Your task to perform on an android device: Go to wifi settings Image 0: 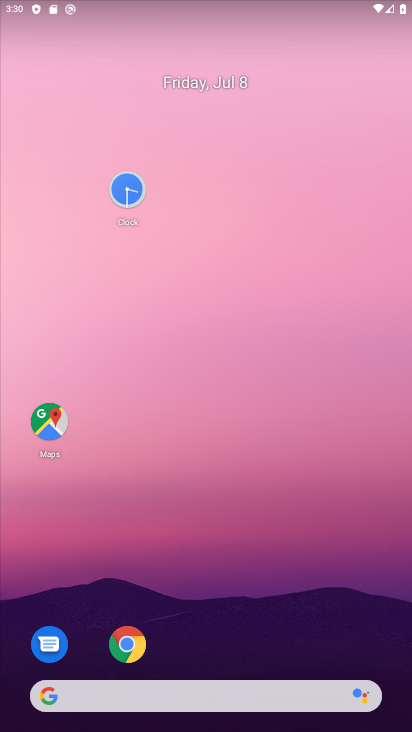
Step 0: drag from (210, 405) to (194, 302)
Your task to perform on an android device: Go to wifi settings Image 1: 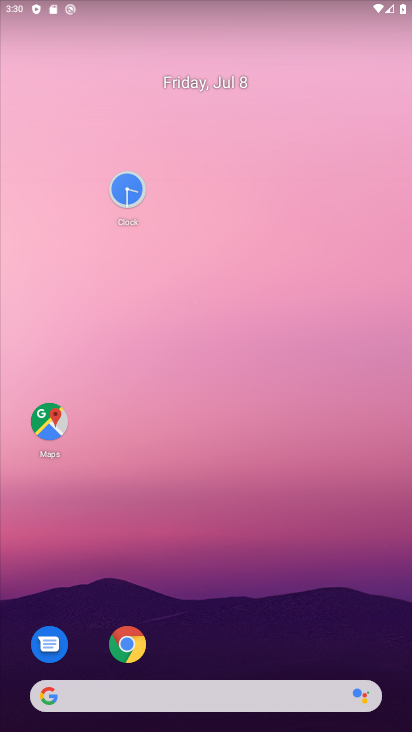
Step 1: drag from (179, 575) to (114, 72)
Your task to perform on an android device: Go to wifi settings Image 2: 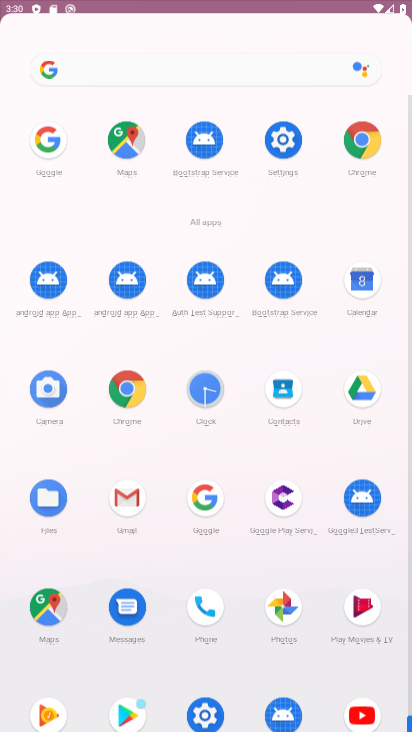
Step 2: drag from (227, 553) to (169, 35)
Your task to perform on an android device: Go to wifi settings Image 3: 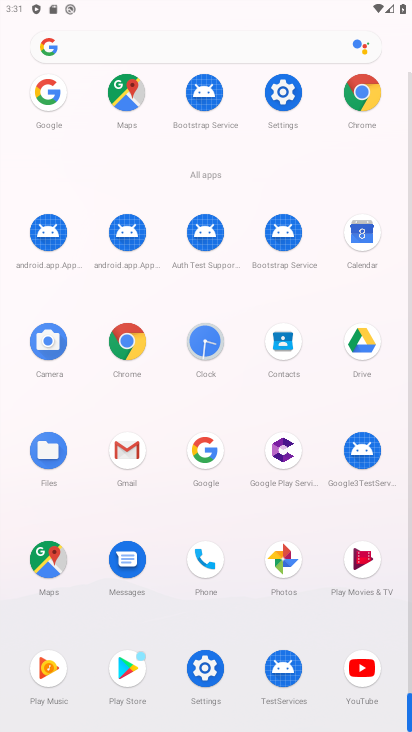
Step 3: click (211, 674)
Your task to perform on an android device: Go to wifi settings Image 4: 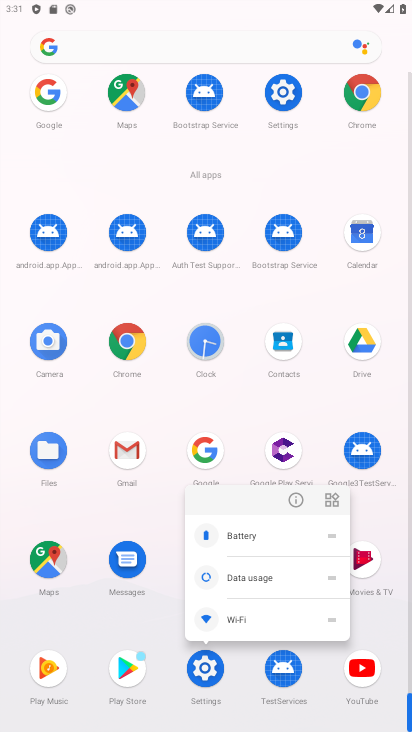
Step 4: click (279, 95)
Your task to perform on an android device: Go to wifi settings Image 5: 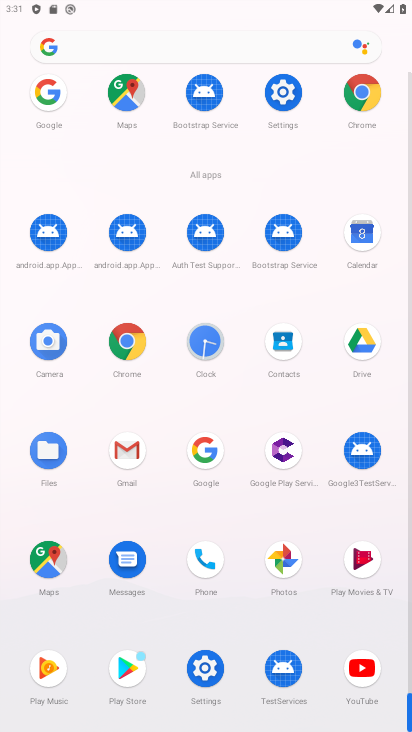
Step 5: click (285, 97)
Your task to perform on an android device: Go to wifi settings Image 6: 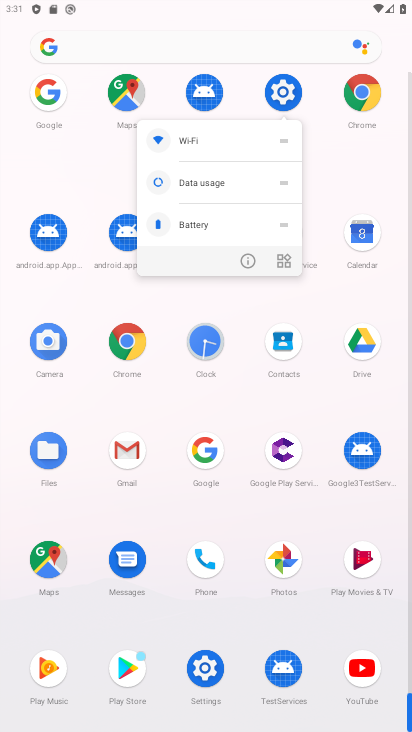
Step 6: click (272, 99)
Your task to perform on an android device: Go to wifi settings Image 7: 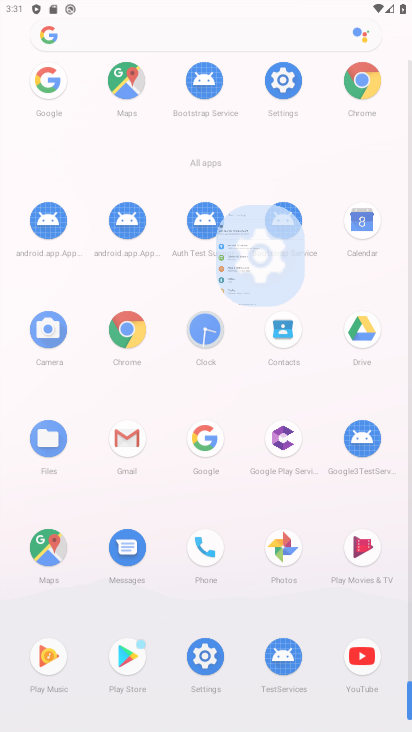
Step 7: click (290, 94)
Your task to perform on an android device: Go to wifi settings Image 8: 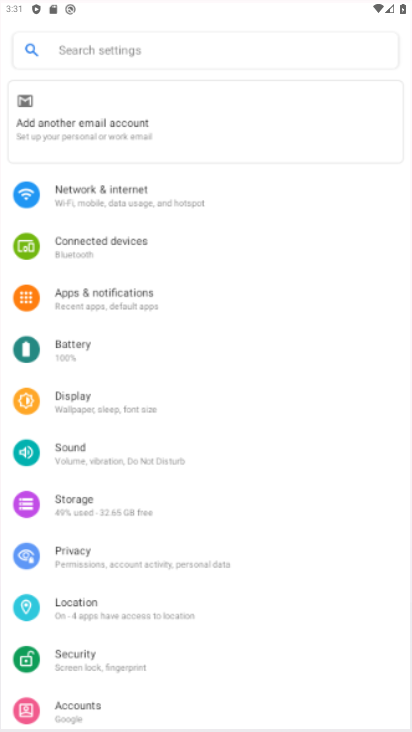
Step 8: click (295, 96)
Your task to perform on an android device: Go to wifi settings Image 9: 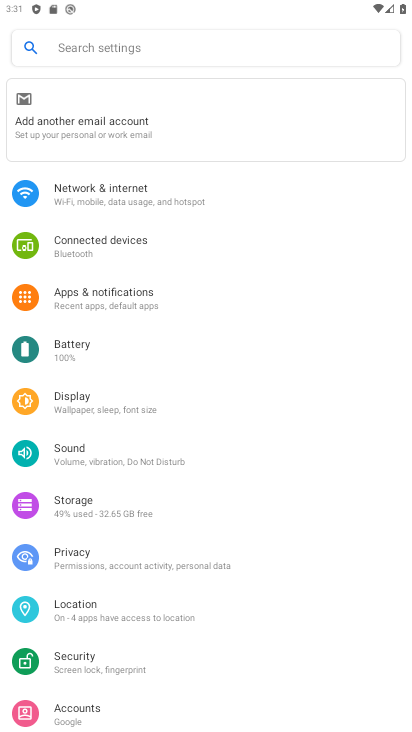
Step 9: click (107, 201)
Your task to perform on an android device: Go to wifi settings Image 10: 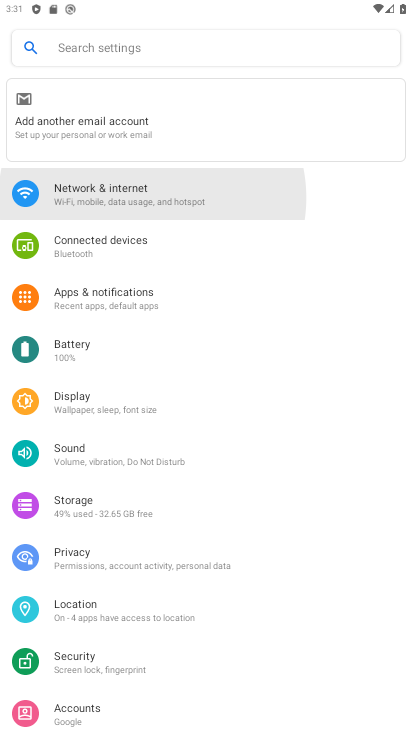
Step 10: click (103, 253)
Your task to perform on an android device: Go to wifi settings Image 11: 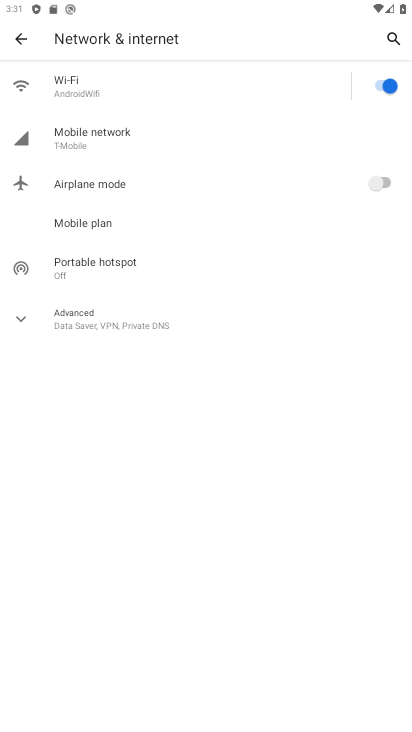
Step 11: click (101, 245)
Your task to perform on an android device: Go to wifi settings Image 12: 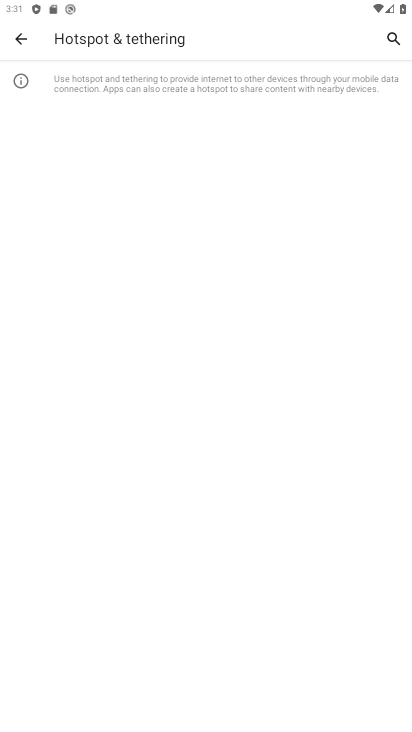
Step 12: click (26, 45)
Your task to perform on an android device: Go to wifi settings Image 13: 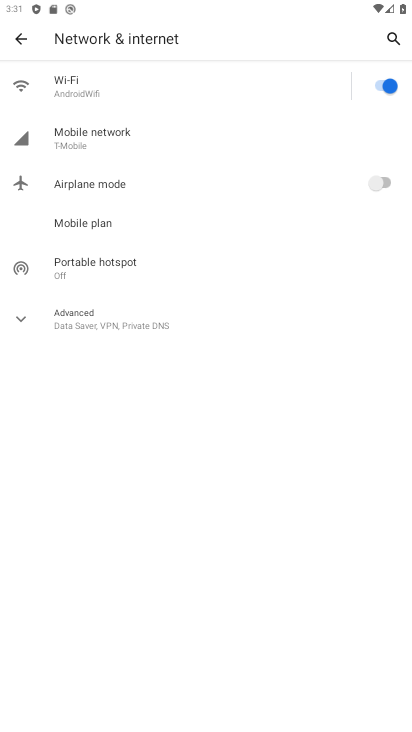
Step 13: task complete